Your task to perform on an android device: Open calendar and show me the third week of next month Image 0: 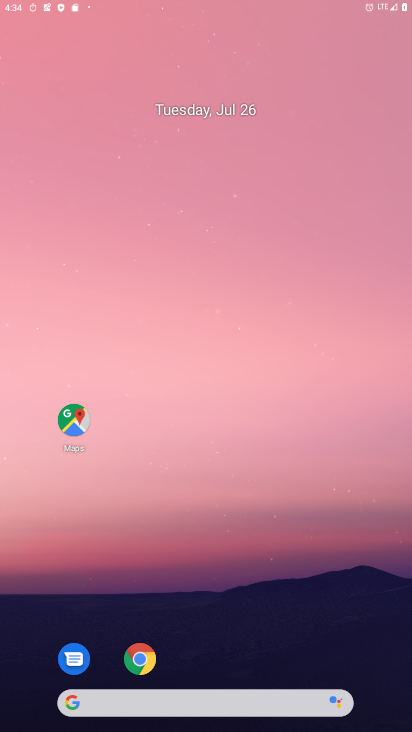
Step 0: press home button
Your task to perform on an android device: Open calendar and show me the third week of next month Image 1: 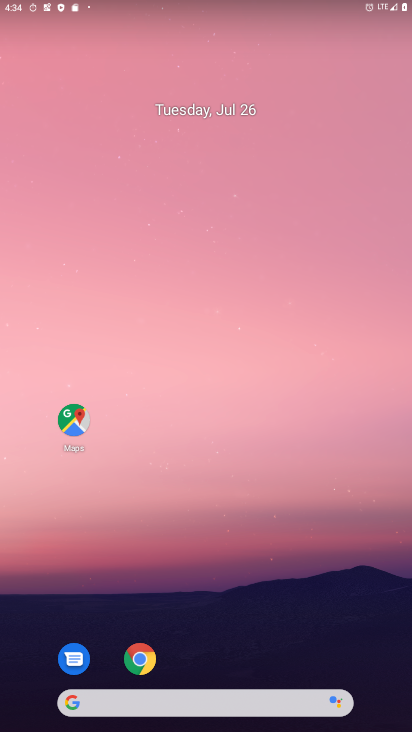
Step 1: drag from (261, 652) to (270, 76)
Your task to perform on an android device: Open calendar and show me the third week of next month Image 2: 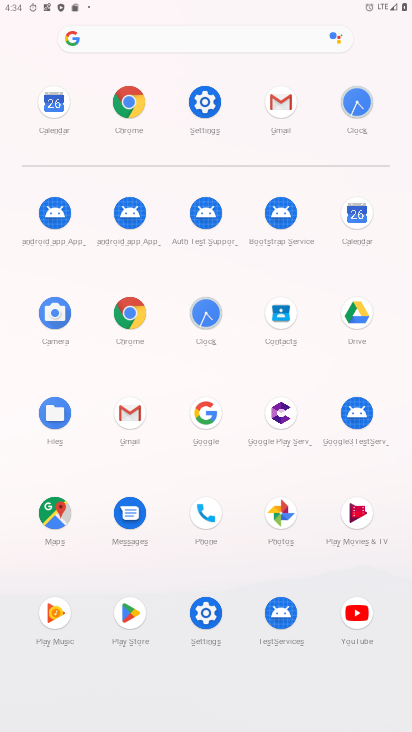
Step 2: click (363, 222)
Your task to perform on an android device: Open calendar and show me the third week of next month Image 3: 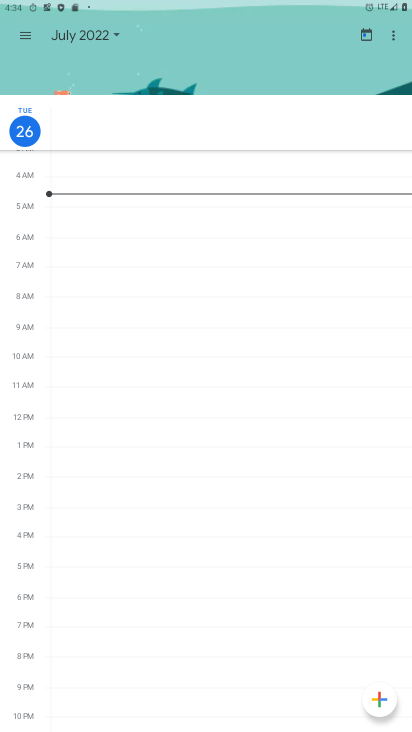
Step 3: click (103, 35)
Your task to perform on an android device: Open calendar and show me the third week of next month Image 4: 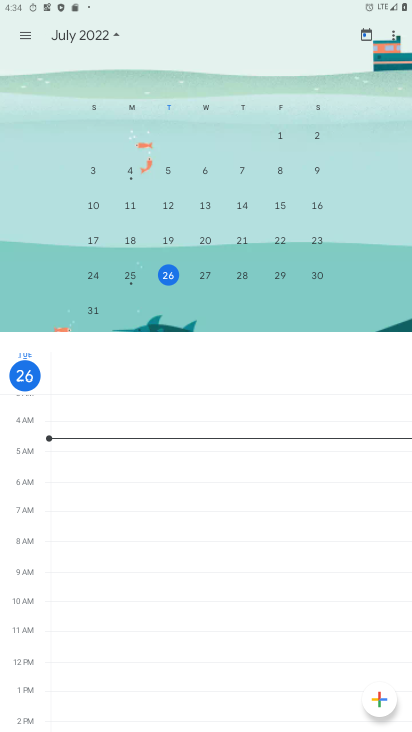
Step 4: drag from (318, 216) to (93, 212)
Your task to perform on an android device: Open calendar and show me the third week of next month Image 5: 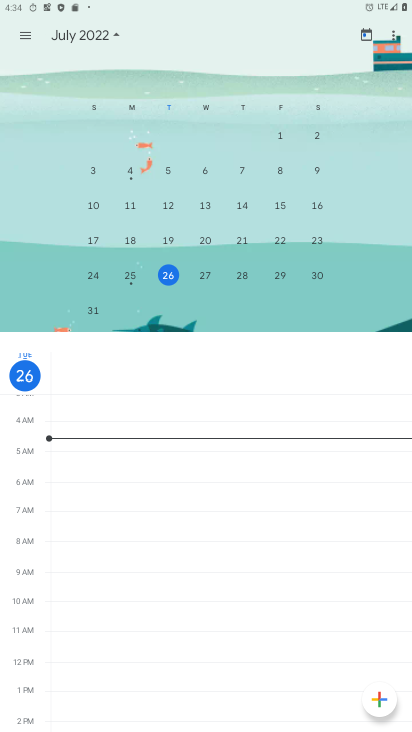
Step 5: click (322, 209)
Your task to perform on an android device: Open calendar and show me the third week of next month Image 6: 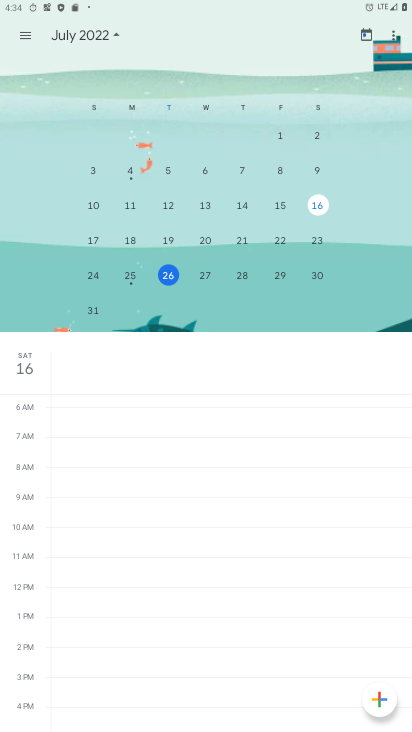
Step 6: click (98, 241)
Your task to perform on an android device: Open calendar and show me the third week of next month Image 7: 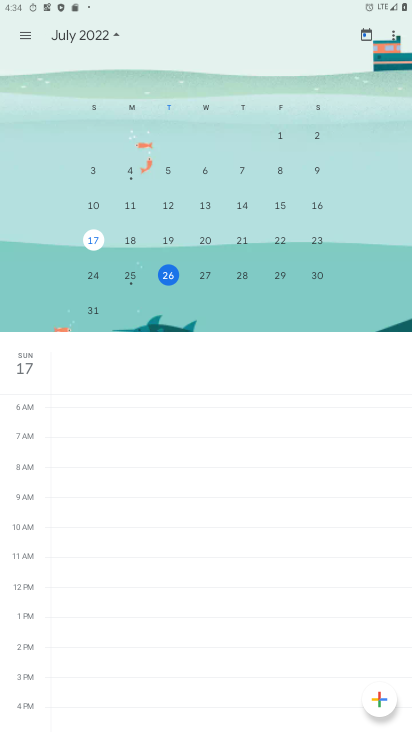
Step 7: click (135, 240)
Your task to perform on an android device: Open calendar and show me the third week of next month Image 8: 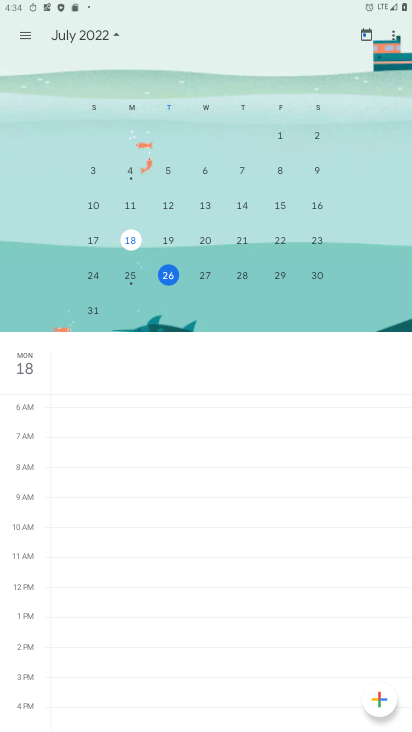
Step 8: click (166, 244)
Your task to perform on an android device: Open calendar and show me the third week of next month Image 9: 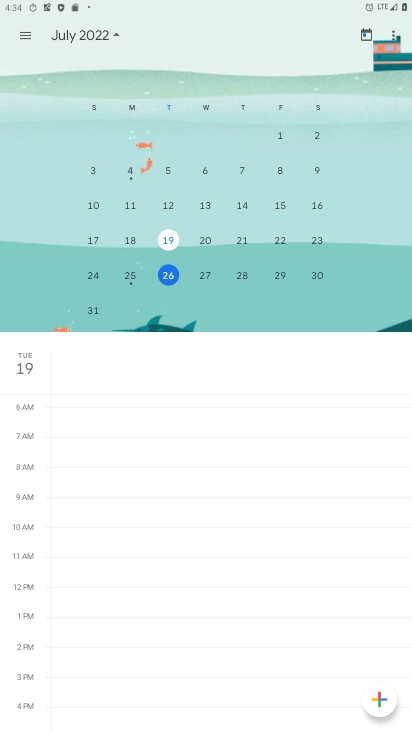
Step 9: click (211, 239)
Your task to perform on an android device: Open calendar and show me the third week of next month Image 10: 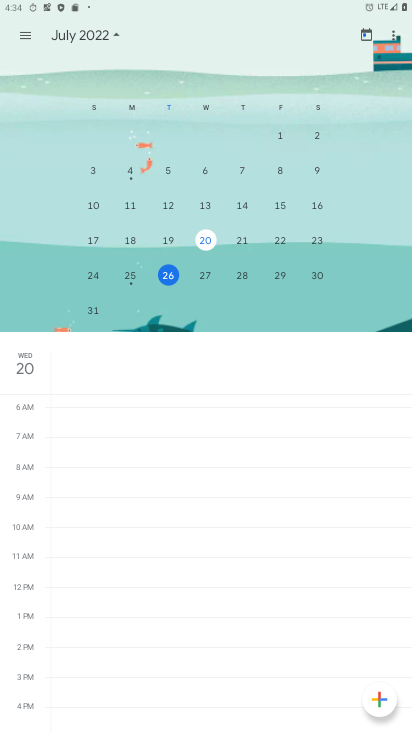
Step 10: click (243, 244)
Your task to perform on an android device: Open calendar and show me the third week of next month Image 11: 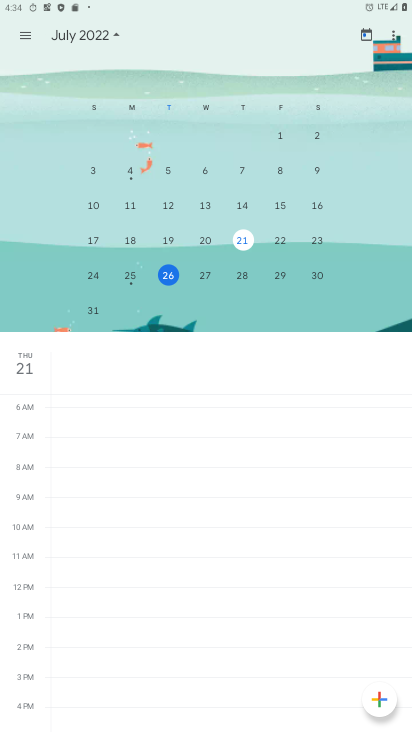
Step 11: click (282, 239)
Your task to perform on an android device: Open calendar and show me the third week of next month Image 12: 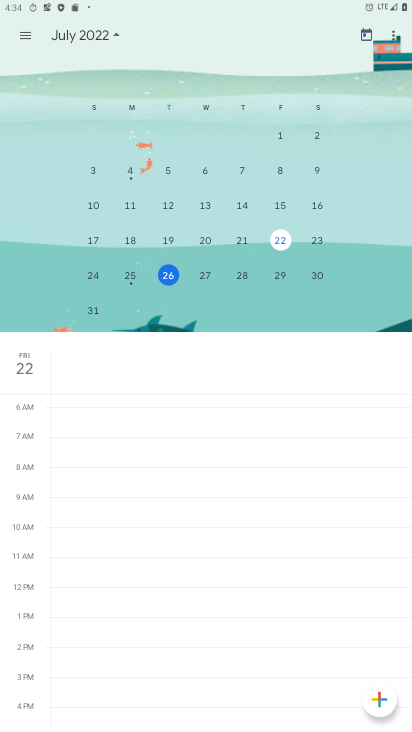
Step 12: task complete